Your task to perform on an android device: star an email in the gmail app Image 0: 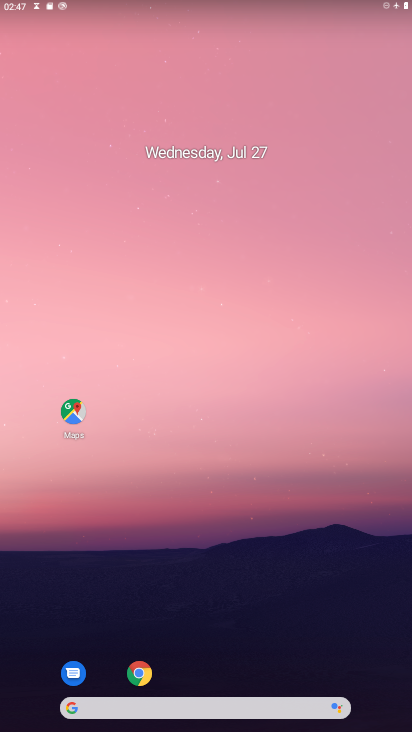
Step 0: drag from (235, 570) to (253, 267)
Your task to perform on an android device: star an email in the gmail app Image 1: 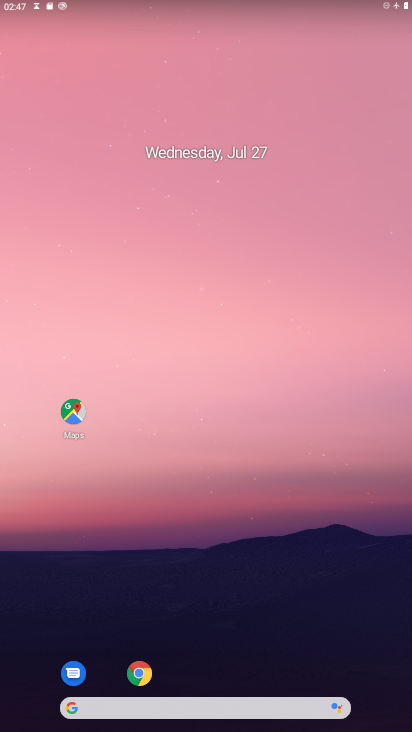
Step 1: drag from (279, 677) to (268, 331)
Your task to perform on an android device: star an email in the gmail app Image 2: 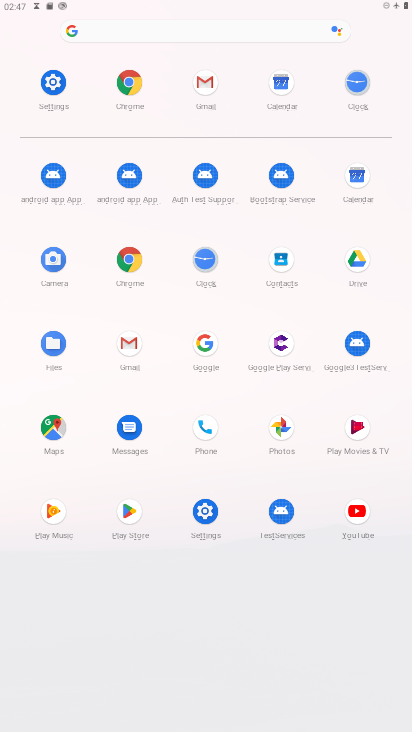
Step 2: click (126, 338)
Your task to perform on an android device: star an email in the gmail app Image 3: 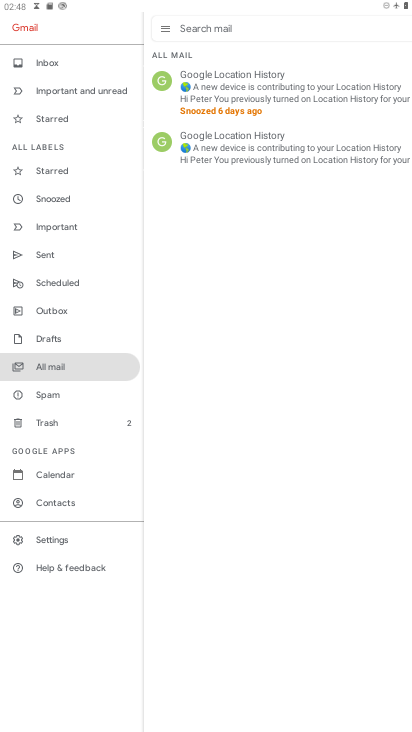
Step 3: click (48, 176)
Your task to perform on an android device: star an email in the gmail app Image 4: 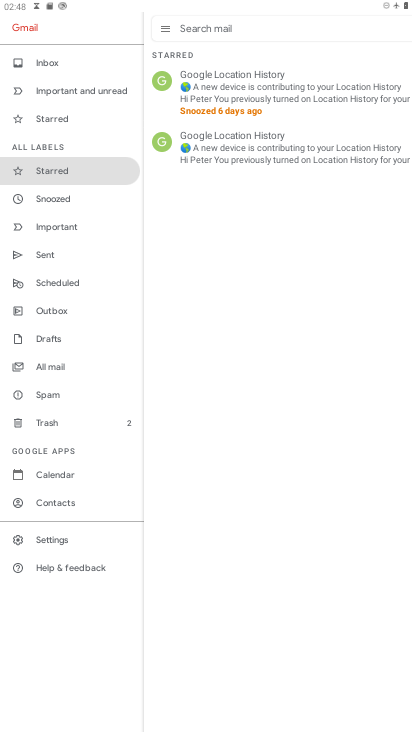
Step 4: click (263, 84)
Your task to perform on an android device: star an email in the gmail app Image 5: 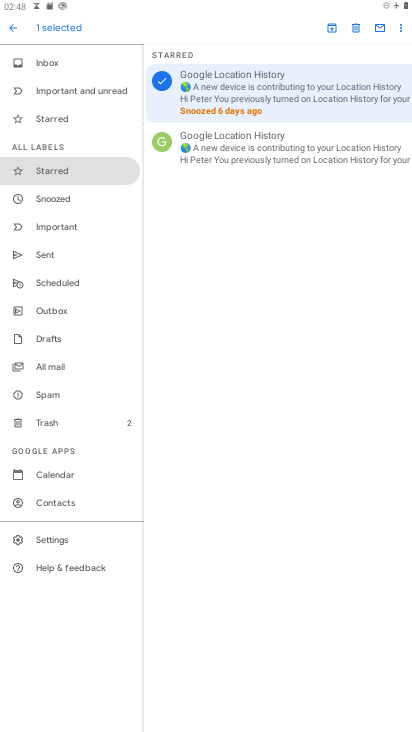
Step 5: click (84, 173)
Your task to perform on an android device: star an email in the gmail app Image 6: 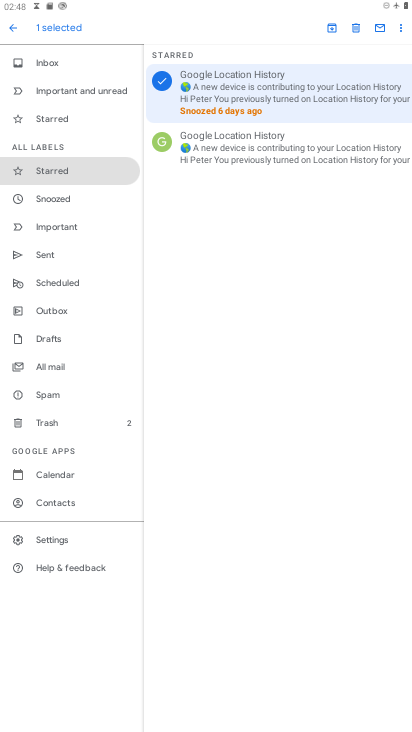
Step 6: task complete